Your task to perform on an android device: check data usage Image 0: 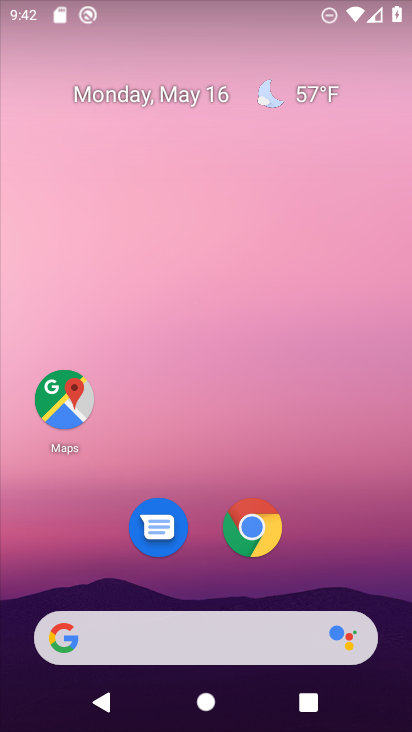
Step 0: drag from (388, 659) to (336, 152)
Your task to perform on an android device: check data usage Image 1: 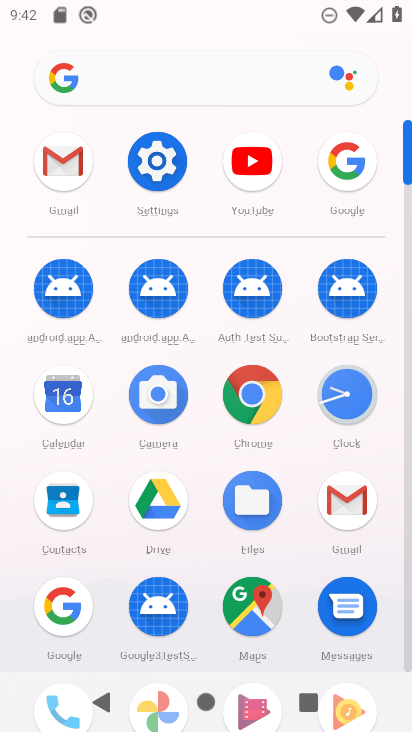
Step 1: click (157, 160)
Your task to perform on an android device: check data usage Image 2: 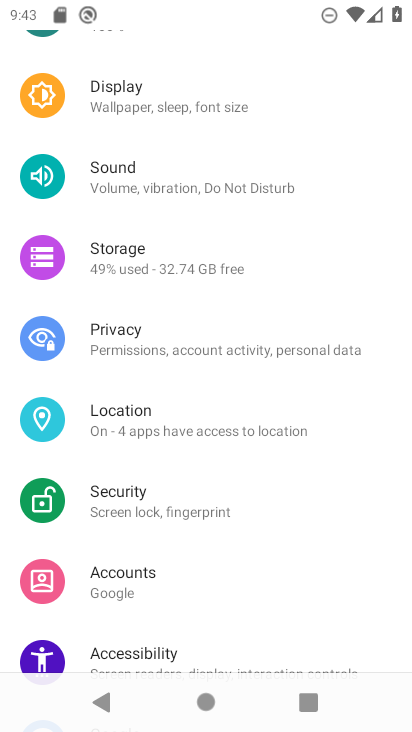
Step 2: drag from (351, 241) to (362, 333)
Your task to perform on an android device: check data usage Image 3: 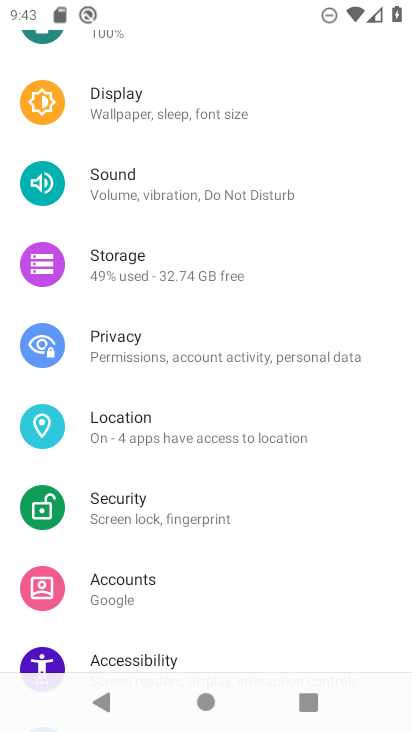
Step 3: drag from (333, 132) to (338, 444)
Your task to perform on an android device: check data usage Image 4: 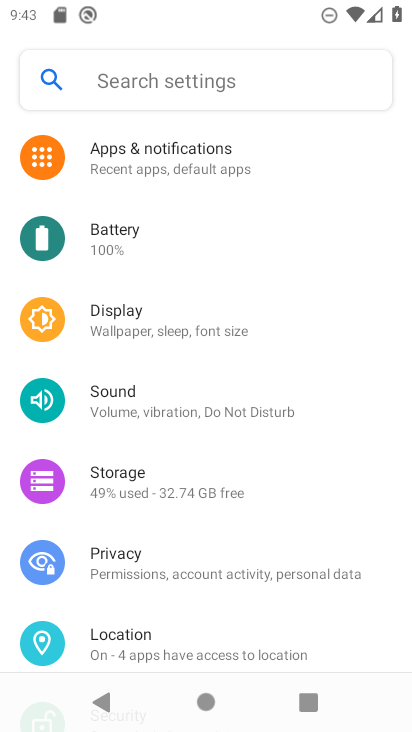
Step 4: drag from (334, 248) to (366, 498)
Your task to perform on an android device: check data usage Image 5: 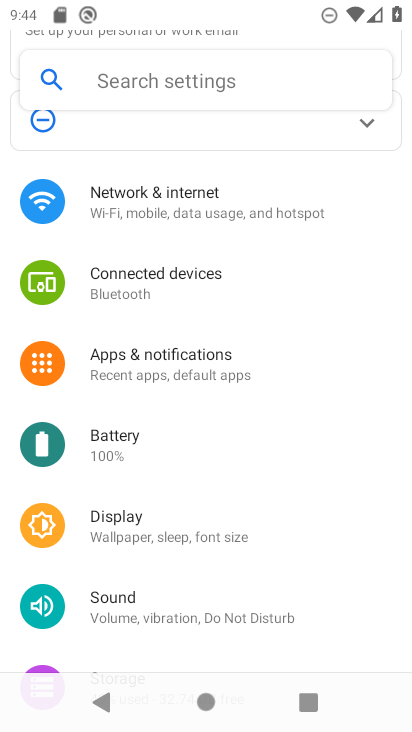
Step 5: click (166, 202)
Your task to perform on an android device: check data usage Image 6: 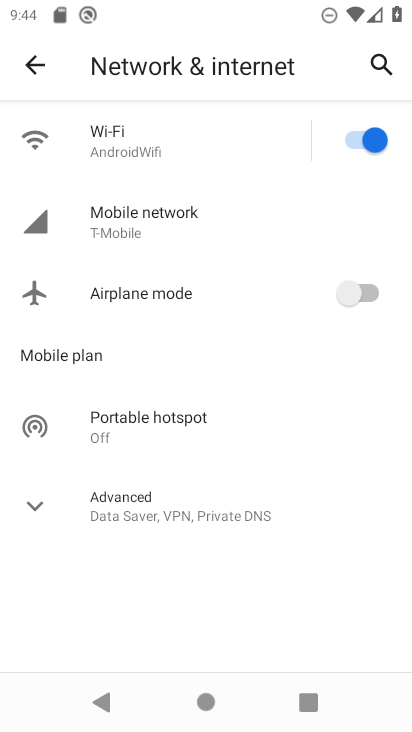
Step 6: click (135, 214)
Your task to perform on an android device: check data usage Image 7: 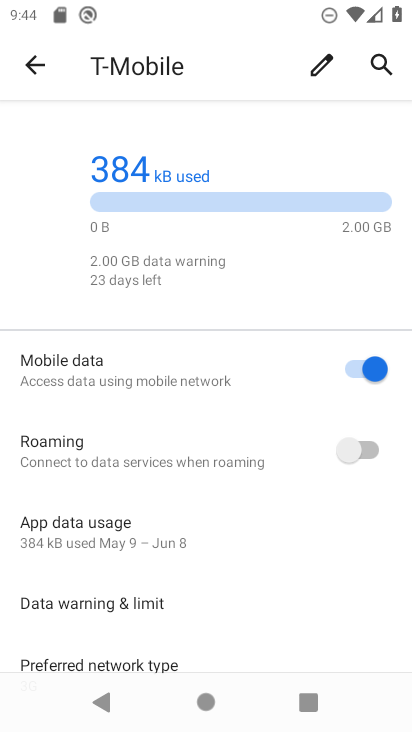
Step 7: task complete